Your task to perform on an android device: Go to eBay Image 0: 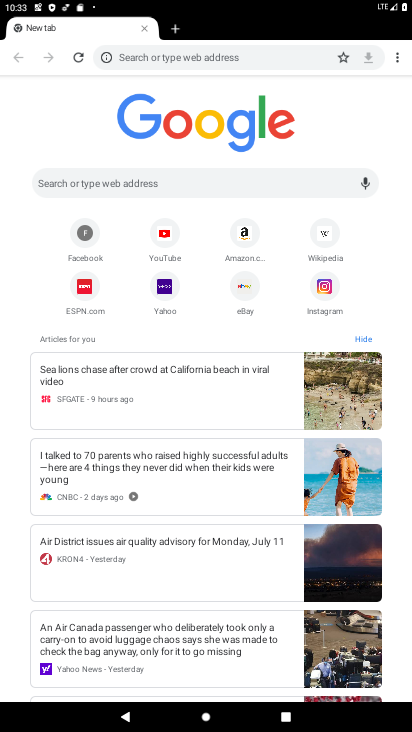
Step 0: click (241, 289)
Your task to perform on an android device: Go to eBay Image 1: 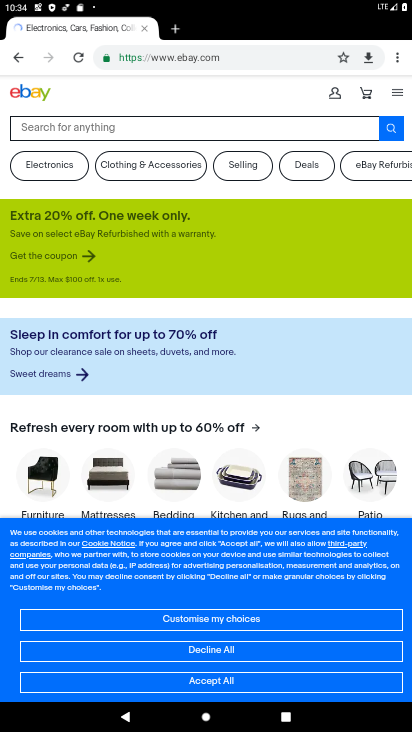
Step 1: click (216, 678)
Your task to perform on an android device: Go to eBay Image 2: 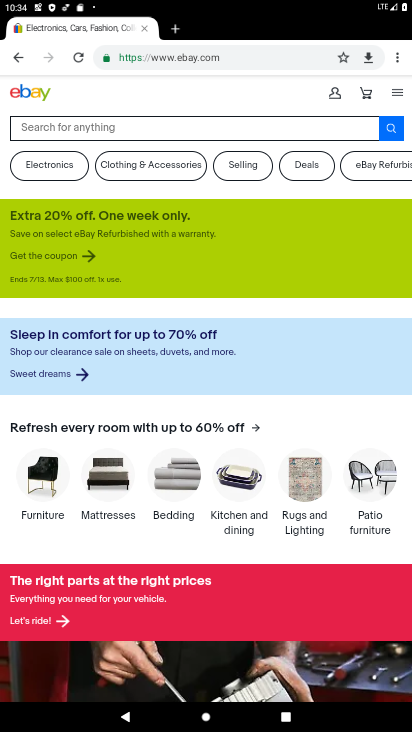
Step 2: task complete